Your task to perform on an android device: Open Chrome and go to the settings page Image 0: 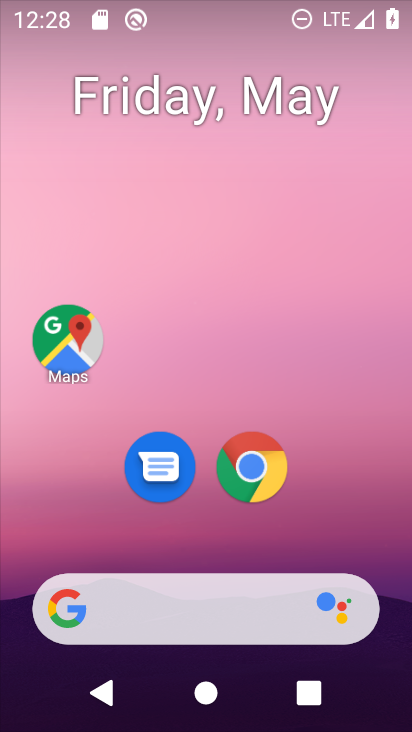
Step 0: drag from (264, 521) to (303, 57)
Your task to perform on an android device: Open Chrome and go to the settings page Image 1: 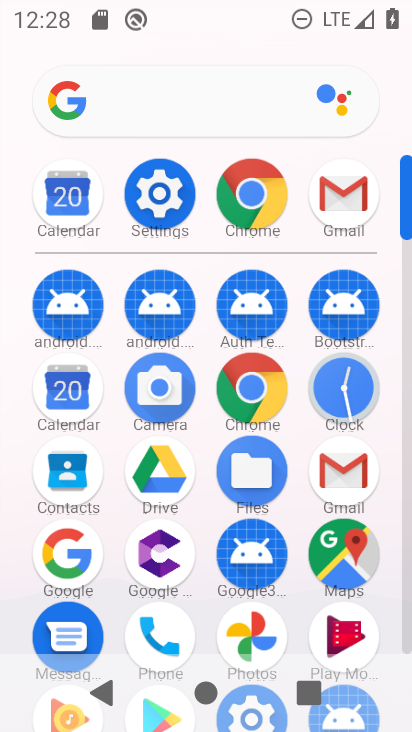
Step 1: click (263, 402)
Your task to perform on an android device: Open Chrome and go to the settings page Image 2: 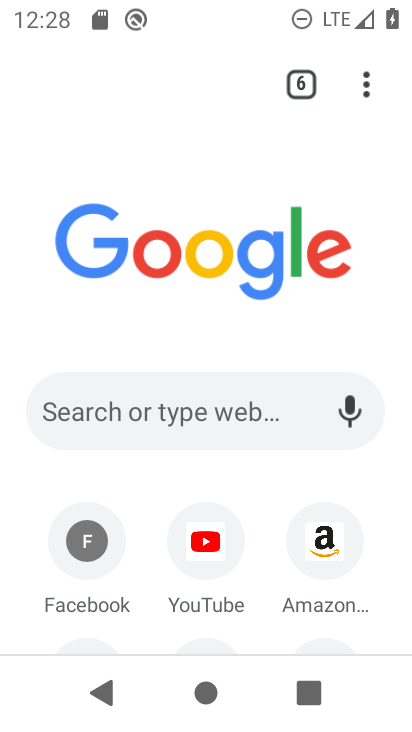
Step 2: click (369, 84)
Your task to perform on an android device: Open Chrome and go to the settings page Image 3: 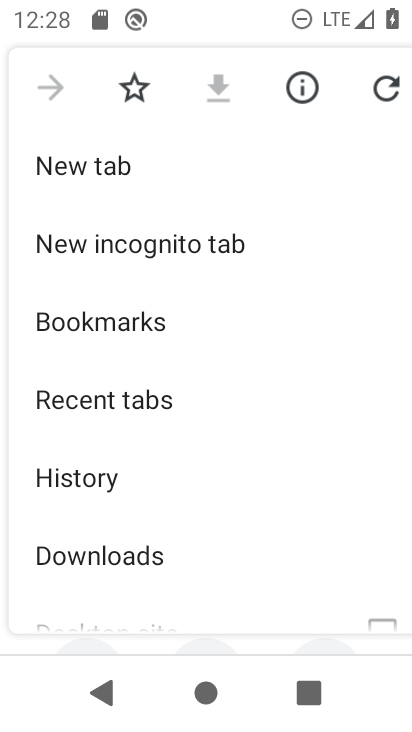
Step 3: drag from (266, 574) to (255, 110)
Your task to perform on an android device: Open Chrome and go to the settings page Image 4: 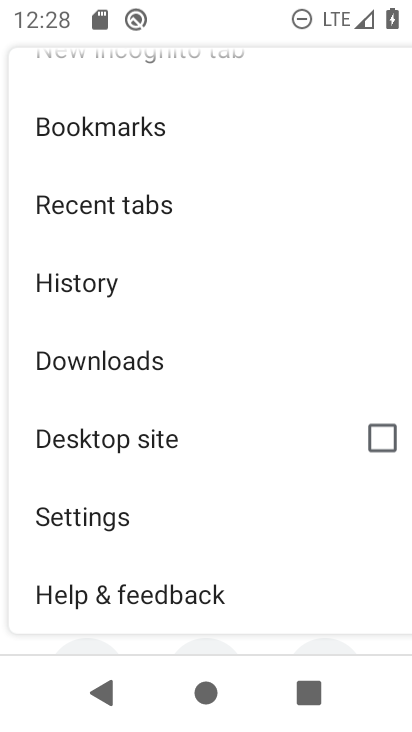
Step 4: click (159, 519)
Your task to perform on an android device: Open Chrome and go to the settings page Image 5: 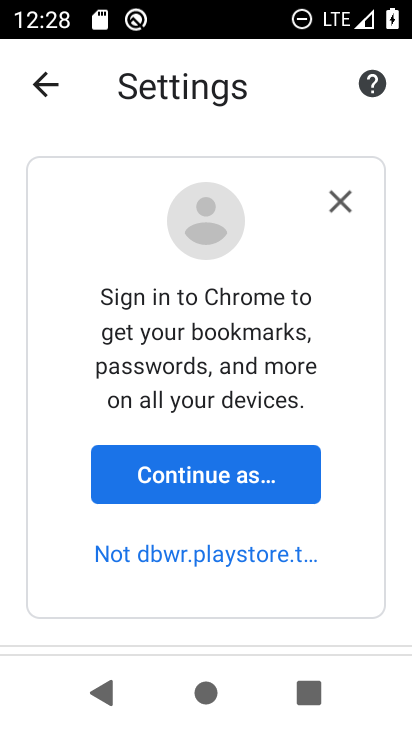
Step 5: task complete